Your task to perform on an android device: open device folders in google photos Image 0: 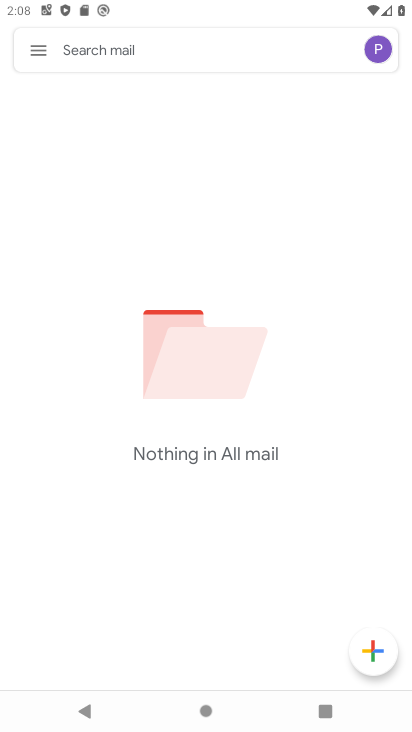
Step 0: press home button
Your task to perform on an android device: open device folders in google photos Image 1: 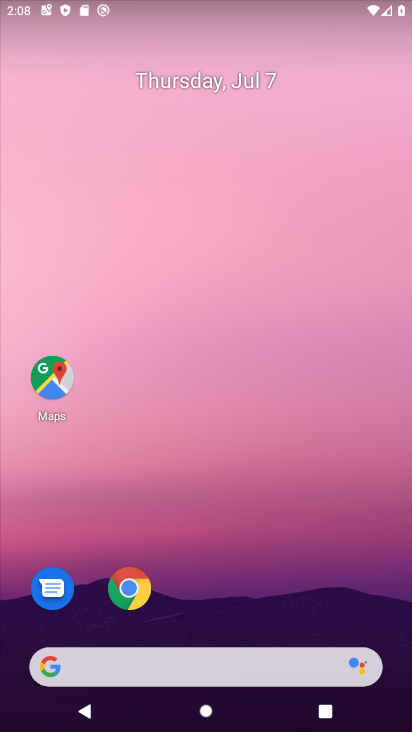
Step 1: drag from (22, 699) to (176, 0)
Your task to perform on an android device: open device folders in google photos Image 2: 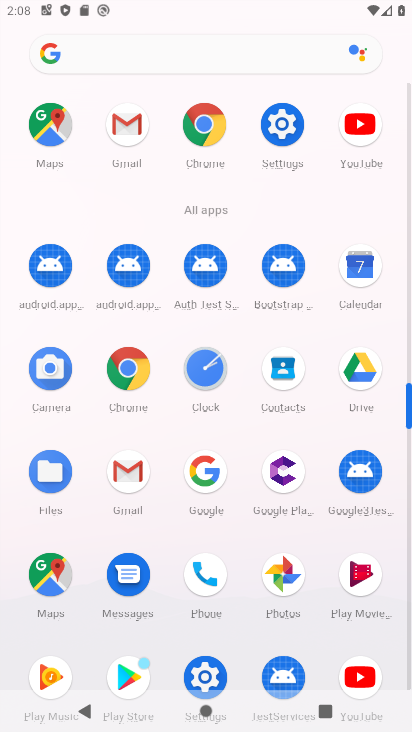
Step 2: click (293, 579)
Your task to perform on an android device: open device folders in google photos Image 3: 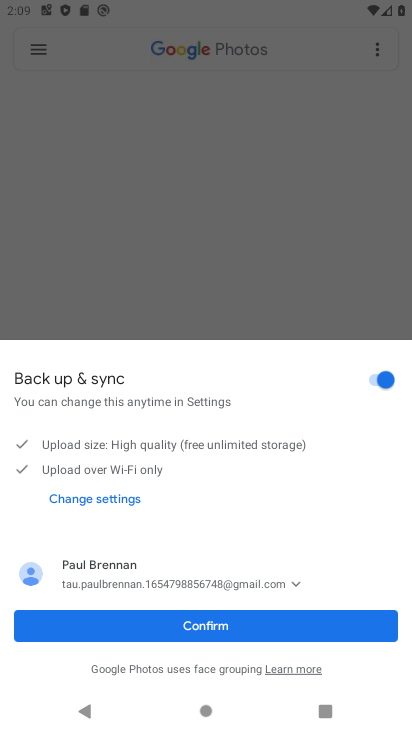
Step 3: click (204, 634)
Your task to perform on an android device: open device folders in google photos Image 4: 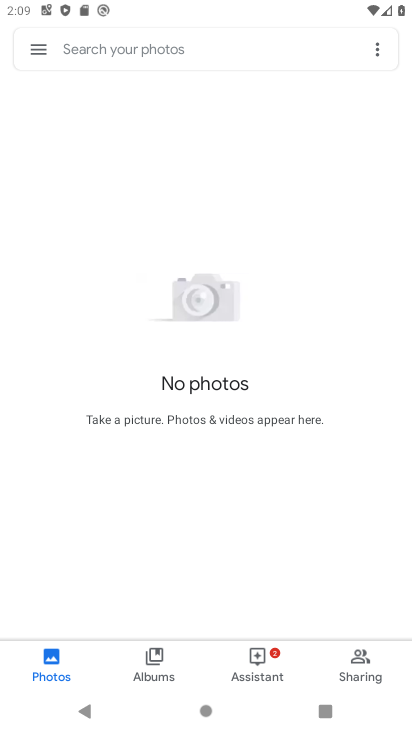
Step 4: click (159, 665)
Your task to perform on an android device: open device folders in google photos Image 5: 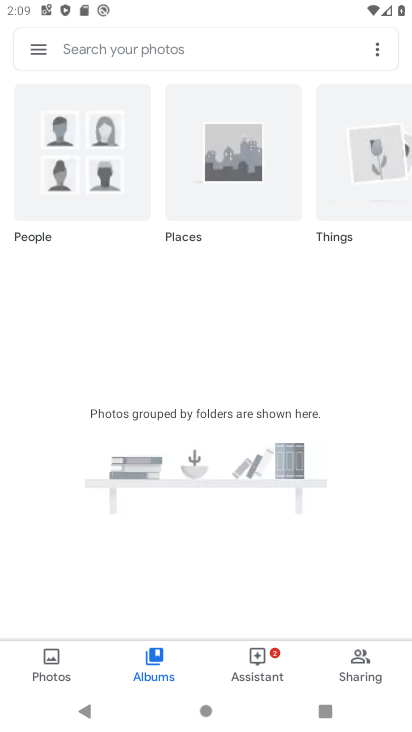
Step 5: task complete